Your task to perform on an android device: Open my contact list Image 0: 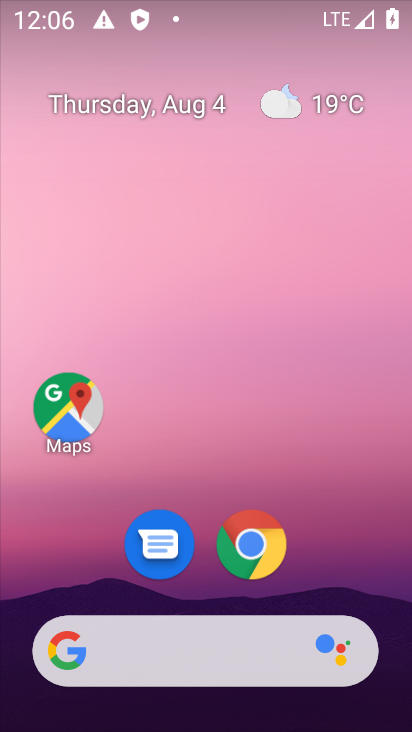
Step 0: drag from (376, 662) to (329, 152)
Your task to perform on an android device: Open my contact list Image 1: 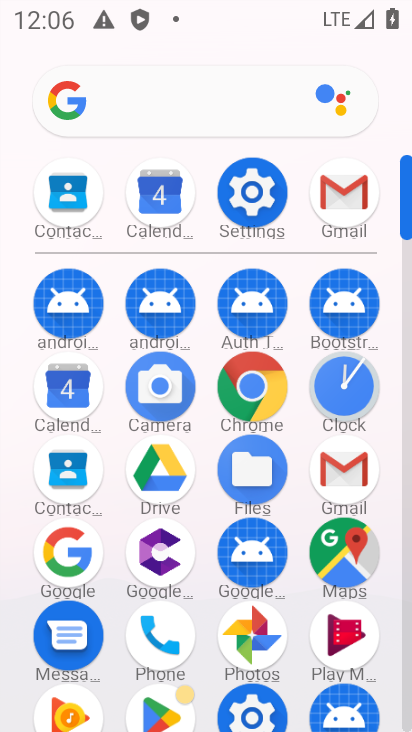
Step 1: click (72, 463)
Your task to perform on an android device: Open my contact list Image 2: 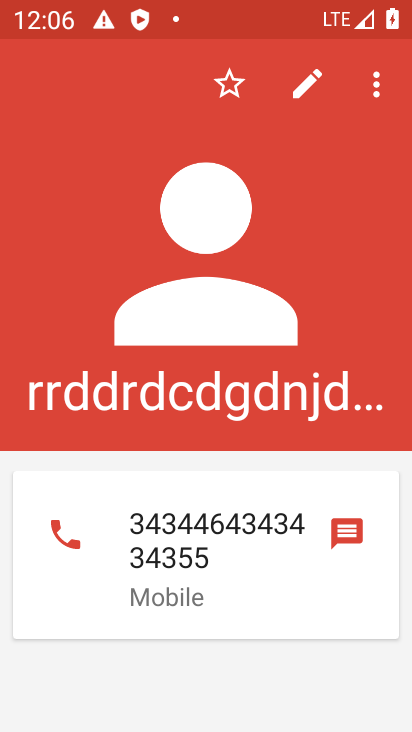
Step 2: task complete